Your task to perform on an android device: Show me popular games on the Play Store Image 0: 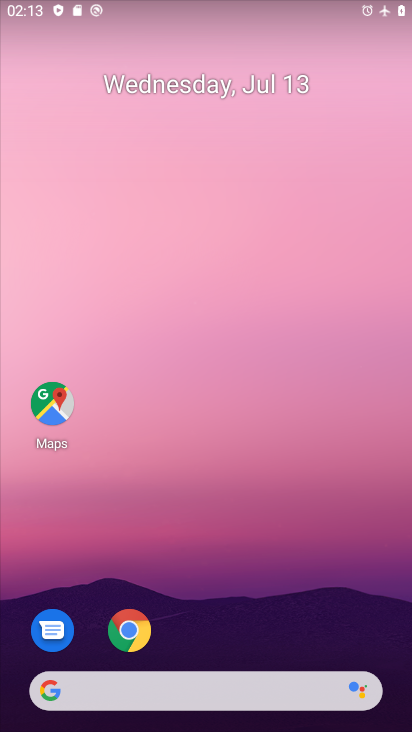
Step 0: drag from (189, 649) to (175, 231)
Your task to perform on an android device: Show me popular games on the Play Store Image 1: 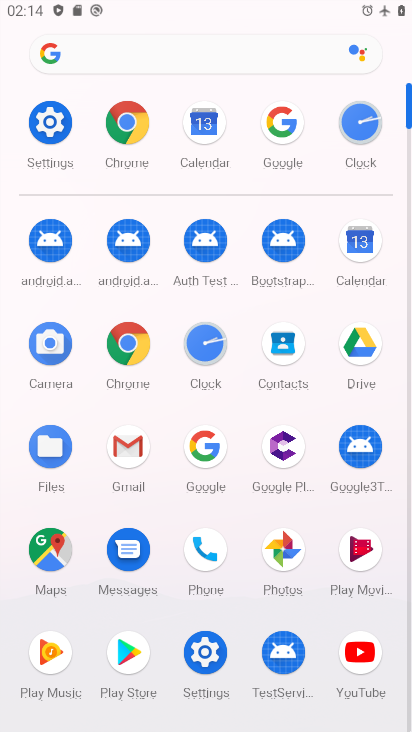
Step 1: click (134, 640)
Your task to perform on an android device: Show me popular games on the Play Store Image 2: 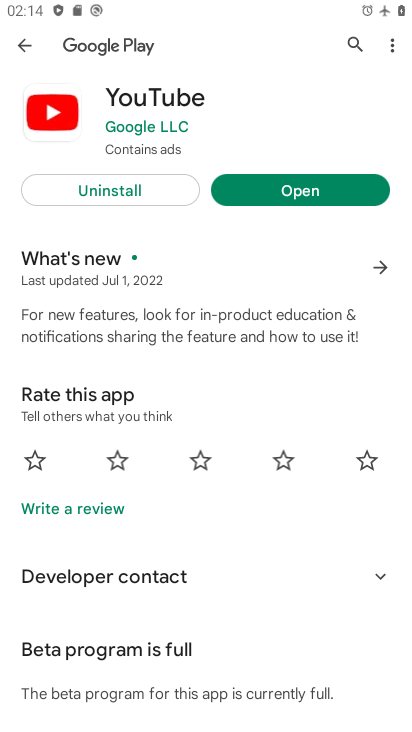
Step 2: click (10, 41)
Your task to perform on an android device: Show me popular games on the Play Store Image 3: 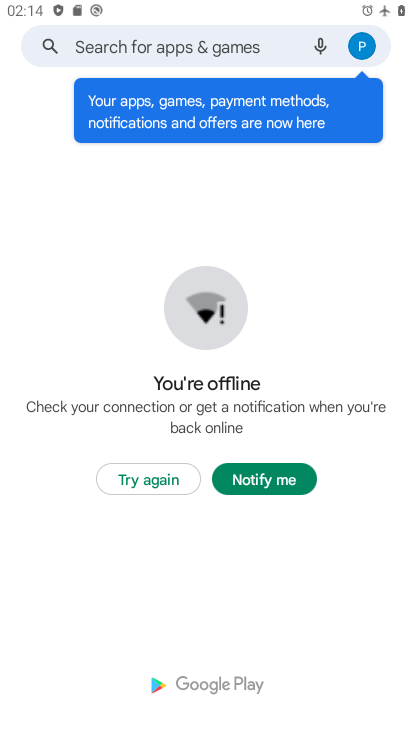
Step 3: task complete